Your task to perform on an android device: turn smart compose on in the gmail app Image 0: 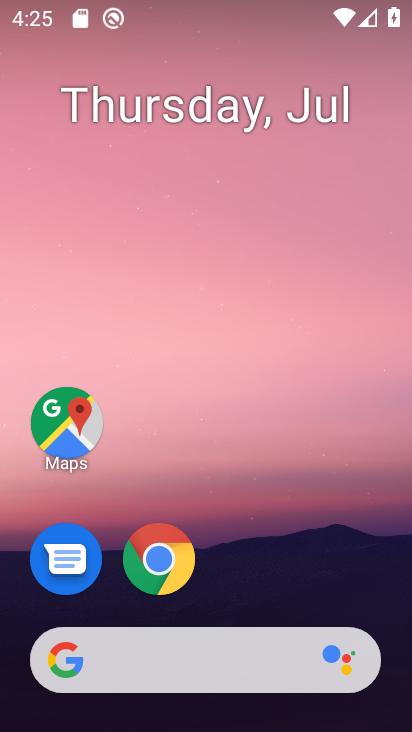
Step 0: drag from (243, 635) to (271, 252)
Your task to perform on an android device: turn smart compose on in the gmail app Image 1: 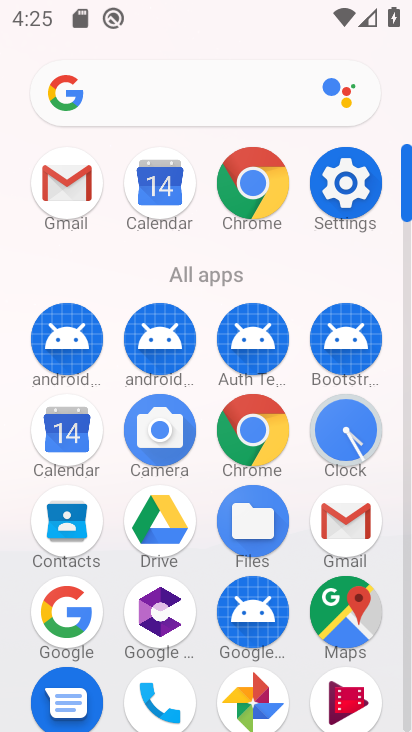
Step 1: click (360, 530)
Your task to perform on an android device: turn smart compose on in the gmail app Image 2: 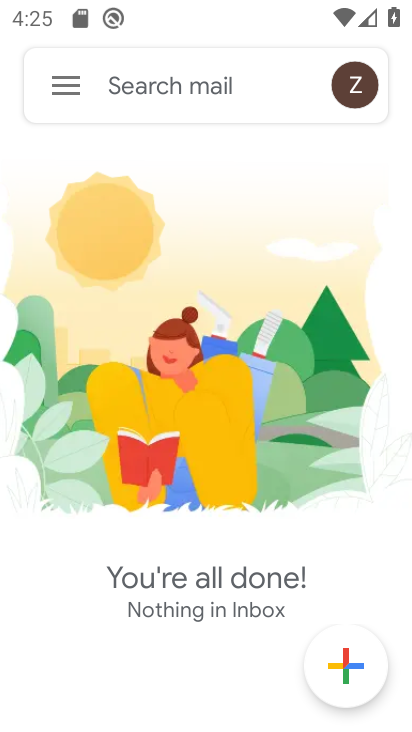
Step 2: click (76, 98)
Your task to perform on an android device: turn smart compose on in the gmail app Image 3: 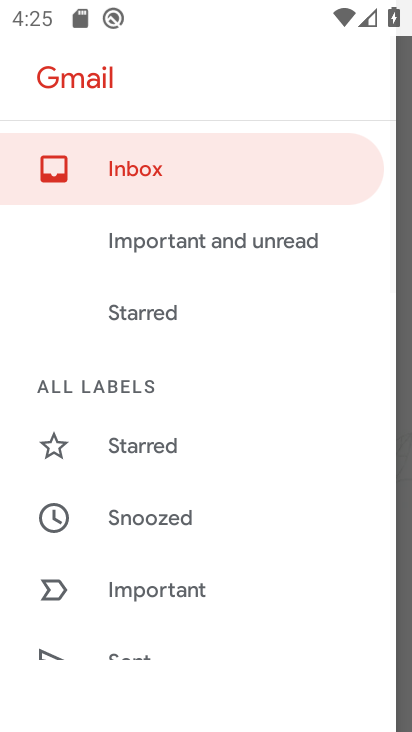
Step 3: drag from (133, 544) to (203, 192)
Your task to perform on an android device: turn smart compose on in the gmail app Image 4: 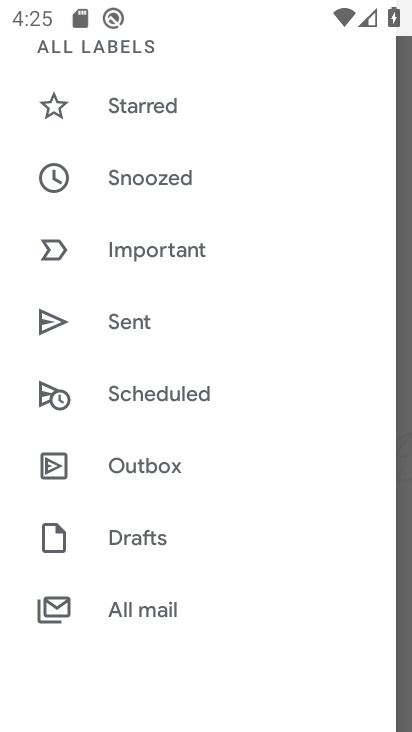
Step 4: drag from (176, 557) to (228, 242)
Your task to perform on an android device: turn smart compose on in the gmail app Image 5: 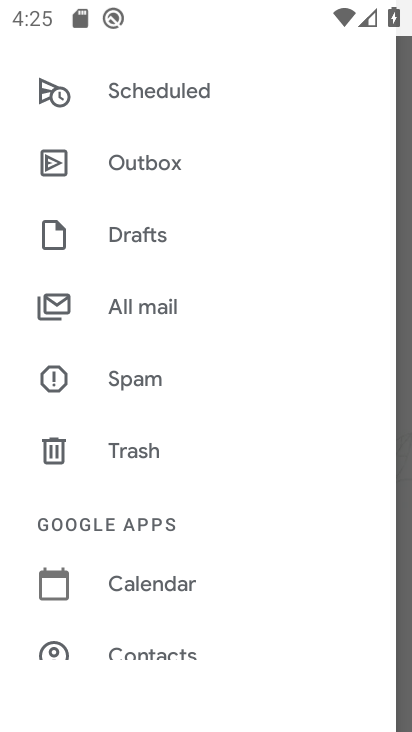
Step 5: drag from (109, 569) to (196, 217)
Your task to perform on an android device: turn smart compose on in the gmail app Image 6: 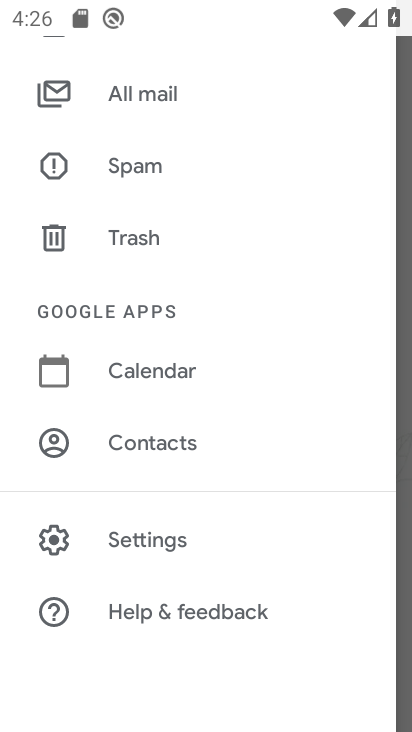
Step 6: click (146, 541)
Your task to perform on an android device: turn smart compose on in the gmail app Image 7: 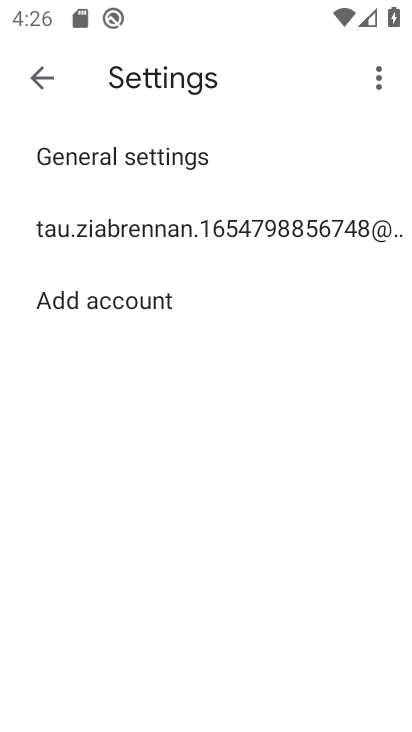
Step 7: click (182, 234)
Your task to perform on an android device: turn smart compose on in the gmail app Image 8: 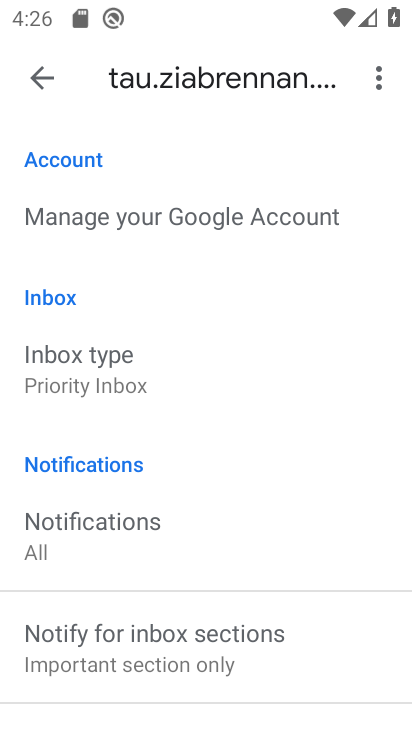
Step 8: task complete